Your task to perform on an android device: Open maps Image 0: 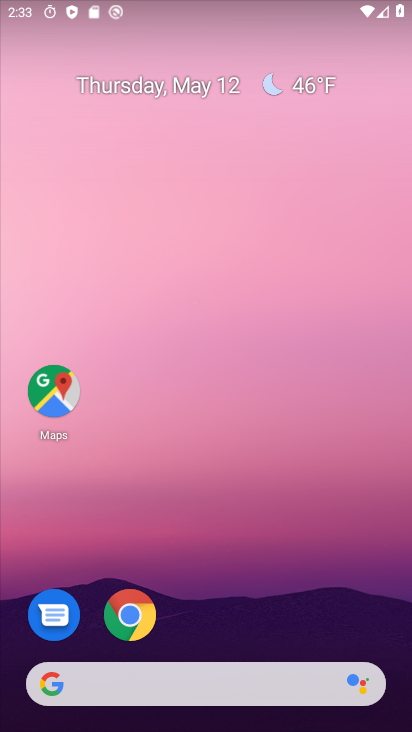
Step 0: click (58, 397)
Your task to perform on an android device: Open maps Image 1: 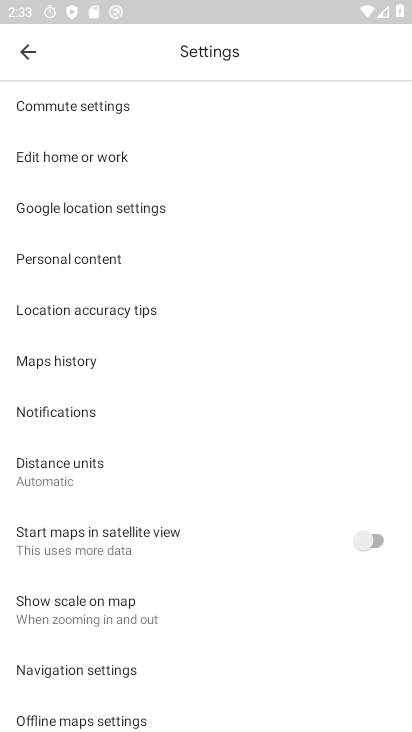
Step 1: task complete